Your task to perform on an android device: Set the phone to "Do not disturb". Image 0: 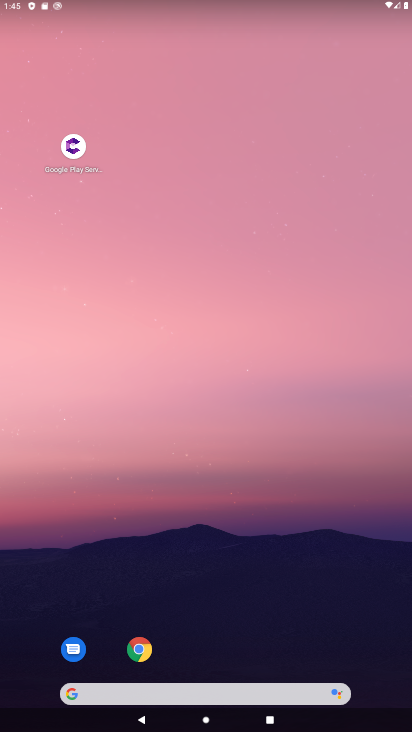
Step 0: drag from (279, 578) to (217, 149)
Your task to perform on an android device: Set the phone to "Do not disturb". Image 1: 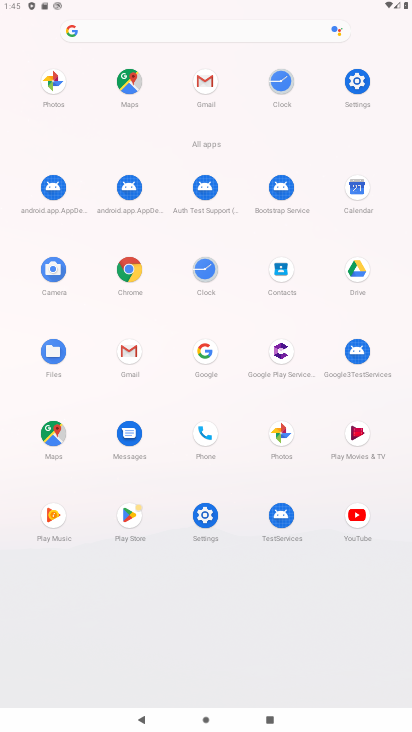
Step 1: click (344, 87)
Your task to perform on an android device: Set the phone to "Do not disturb". Image 2: 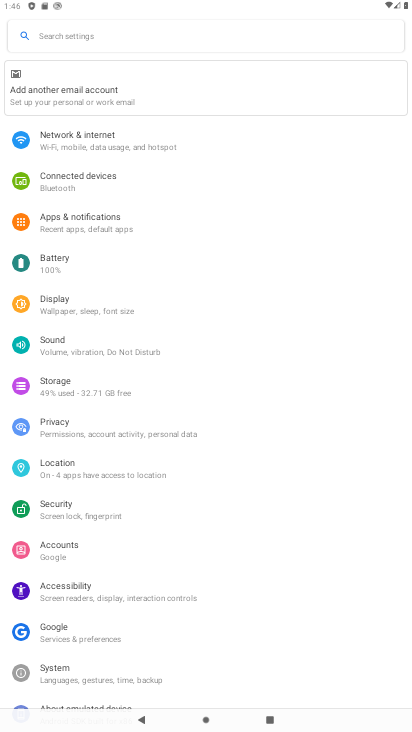
Step 2: click (64, 347)
Your task to perform on an android device: Set the phone to "Do not disturb". Image 3: 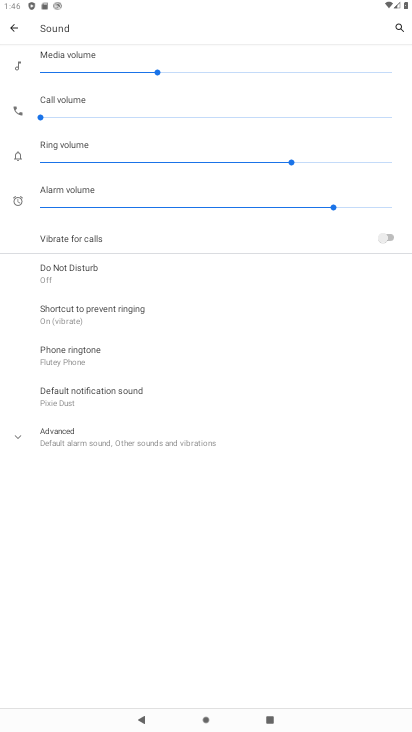
Step 3: click (84, 269)
Your task to perform on an android device: Set the phone to "Do not disturb". Image 4: 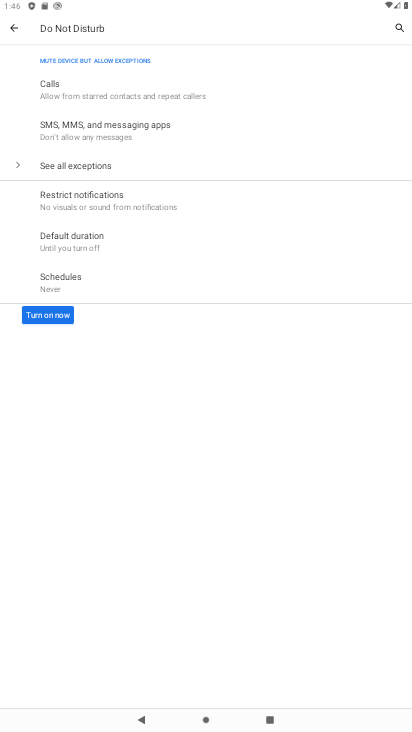
Step 4: click (38, 319)
Your task to perform on an android device: Set the phone to "Do not disturb". Image 5: 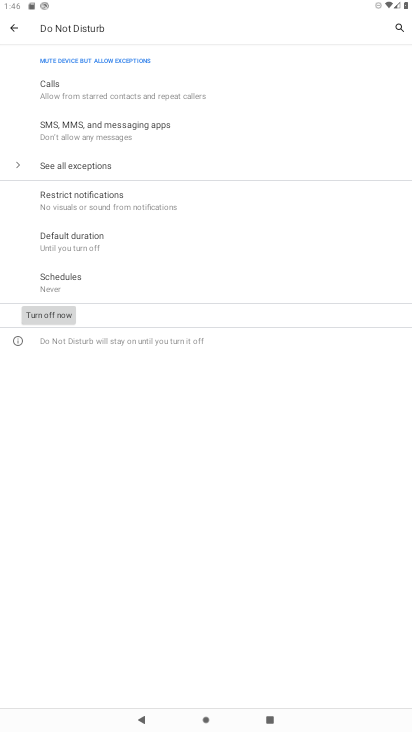
Step 5: task complete